Your task to perform on an android device: Turn on the flashlight Image 0: 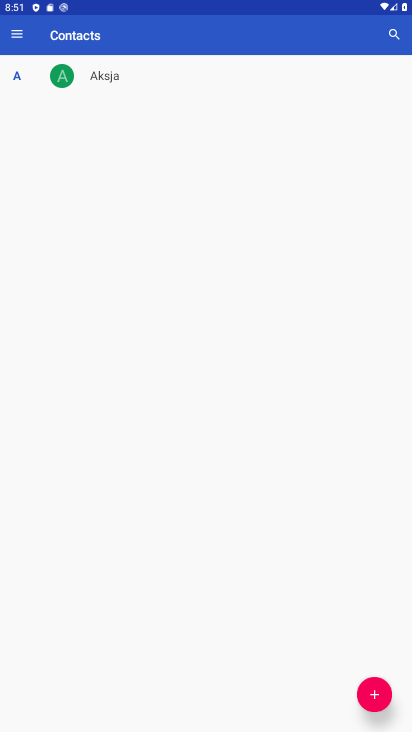
Step 0: press home button
Your task to perform on an android device: Turn on the flashlight Image 1: 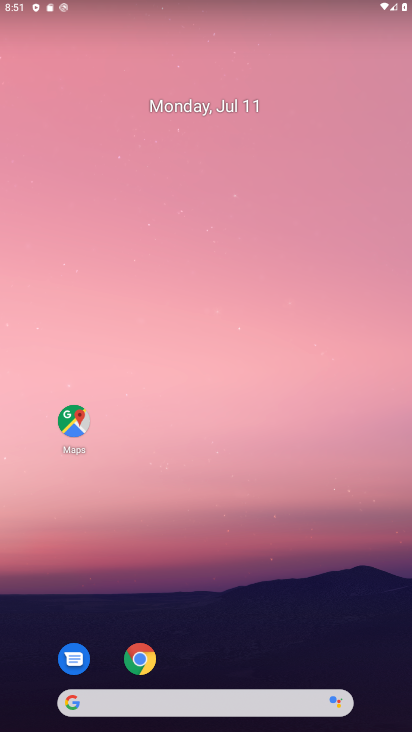
Step 1: drag from (195, 721) to (195, 88)
Your task to perform on an android device: Turn on the flashlight Image 2: 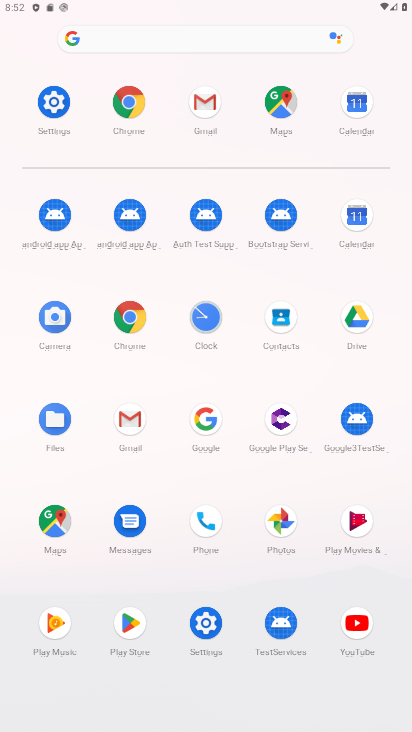
Step 2: click (57, 105)
Your task to perform on an android device: Turn on the flashlight Image 3: 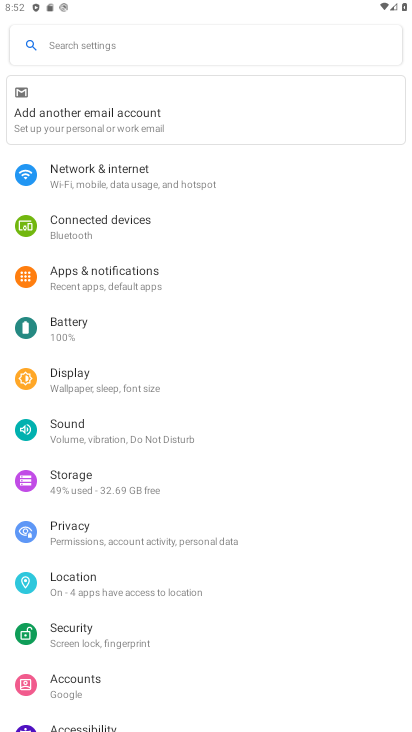
Step 3: task complete